Your task to perform on an android device: turn off notifications in google photos Image 0: 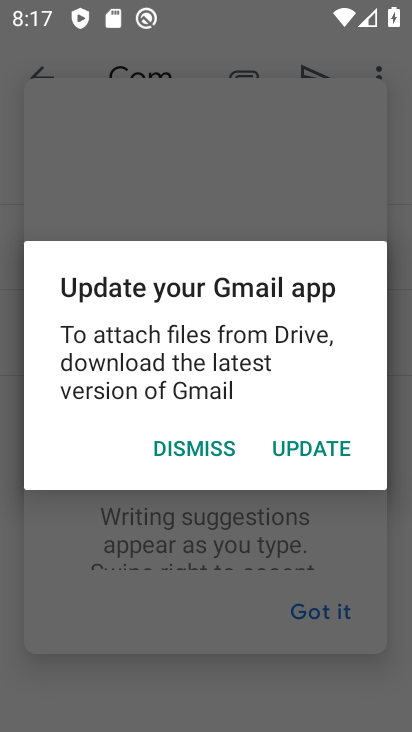
Step 0: press home button
Your task to perform on an android device: turn off notifications in google photos Image 1: 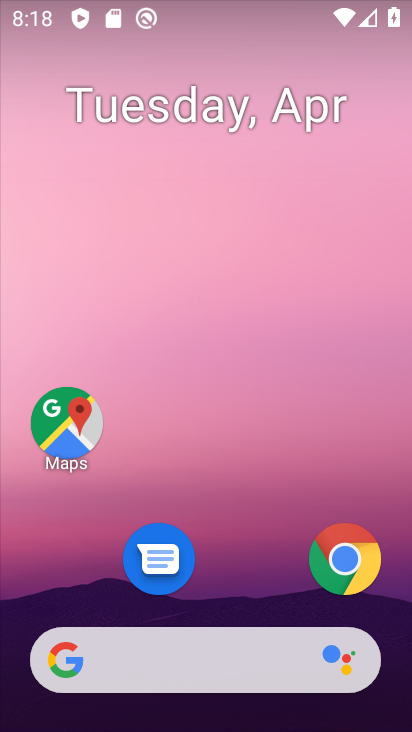
Step 1: drag from (229, 701) to (267, 6)
Your task to perform on an android device: turn off notifications in google photos Image 2: 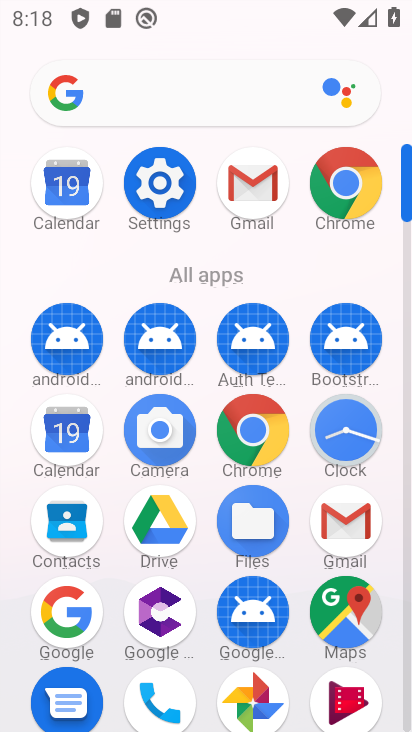
Step 2: click (259, 692)
Your task to perform on an android device: turn off notifications in google photos Image 3: 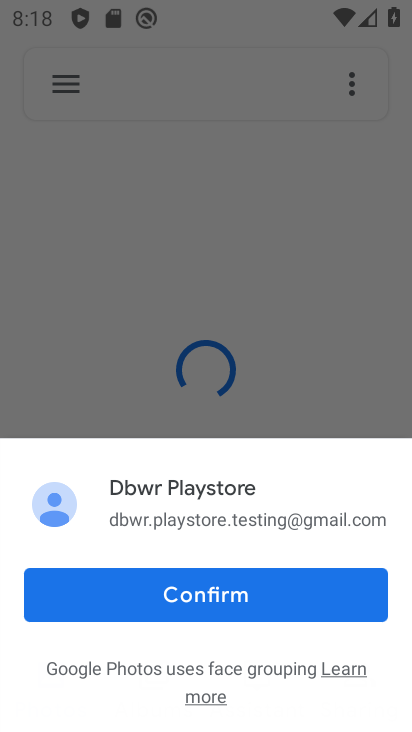
Step 3: click (66, 89)
Your task to perform on an android device: turn off notifications in google photos Image 4: 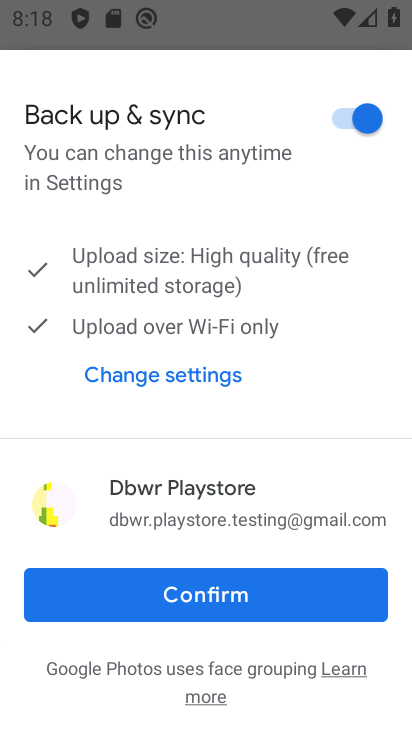
Step 4: click (178, 595)
Your task to perform on an android device: turn off notifications in google photos Image 5: 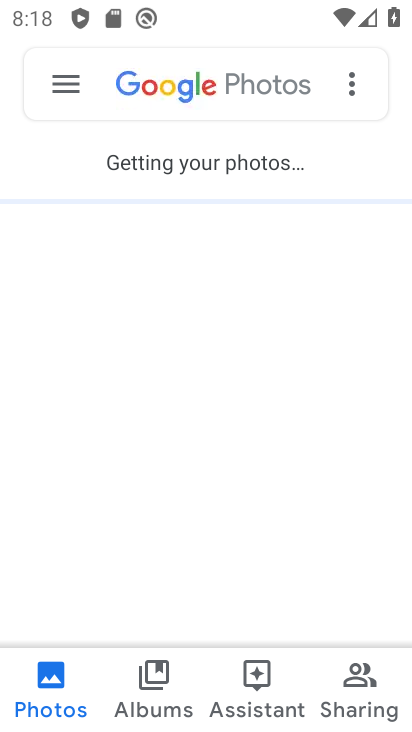
Step 5: click (62, 80)
Your task to perform on an android device: turn off notifications in google photos Image 6: 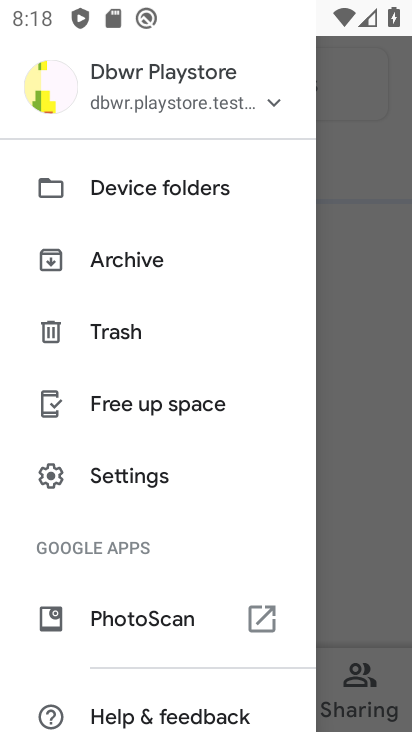
Step 6: click (123, 477)
Your task to perform on an android device: turn off notifications in google photos Image 7: 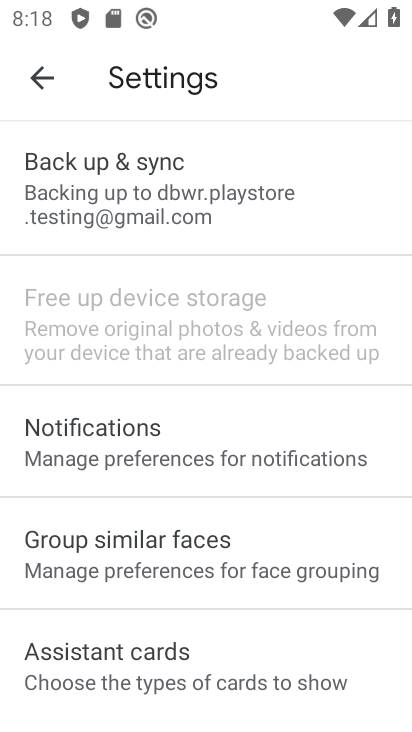
Step 7: click (123, 453)
Your task to perform on an android device: turn off notifications in google photos Image 8: 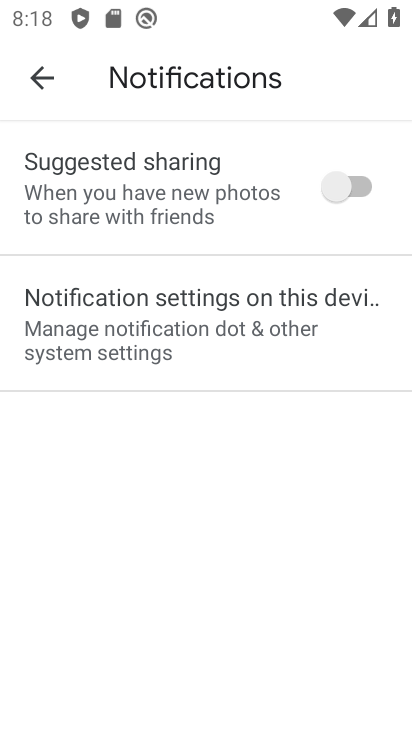
Step 8: click (130, 364)
Your task to perform on an android device: turn off notifications in google photos Image 9: 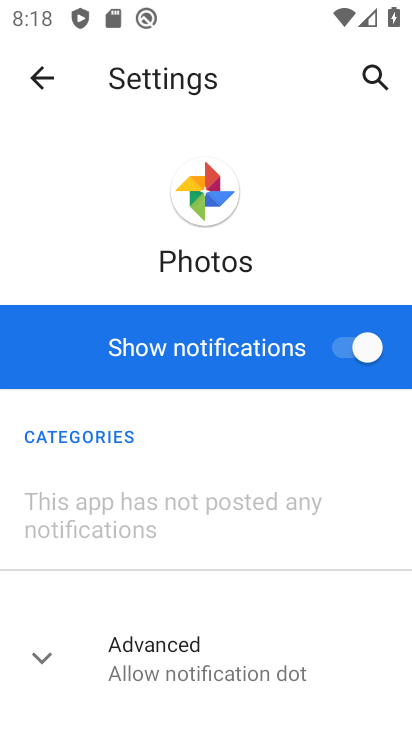
Step 9: click (298, 338)
Your task to perform on an android device: turn off notifications in google photos Image 10: 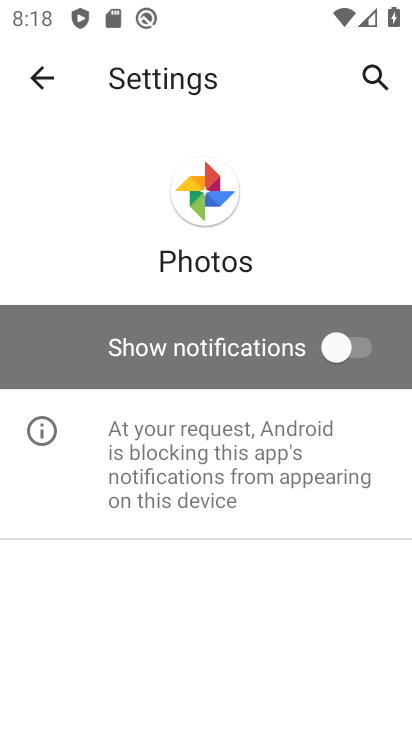
Step 10: task complete